Your task to perform on an android device: open the mobile data screen to see how much data has been used Image 0: 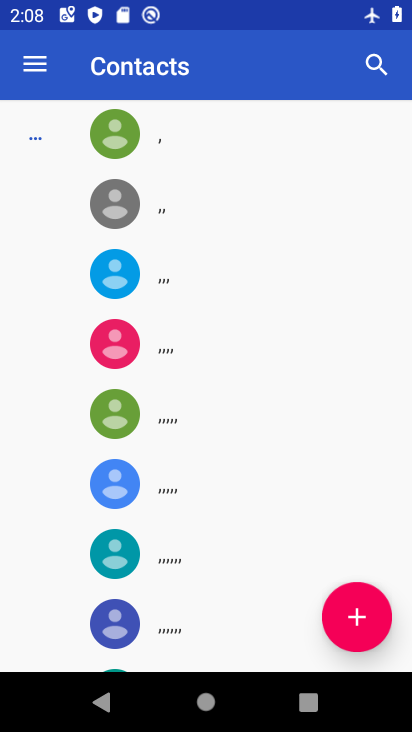
Step 0: press home button
Your task to perform on an android device: open the mobile data screen to see how much data has been used Image 1: 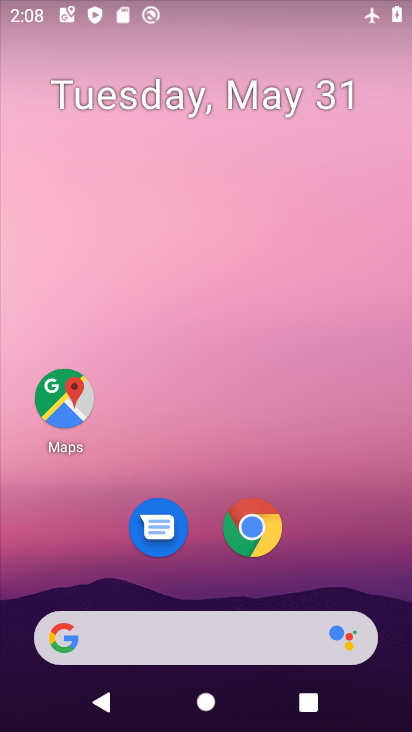
Step 1: click (342, 71)
Your task to perform on an android device: open the mobile data screen to see how much data has been used Image 2: 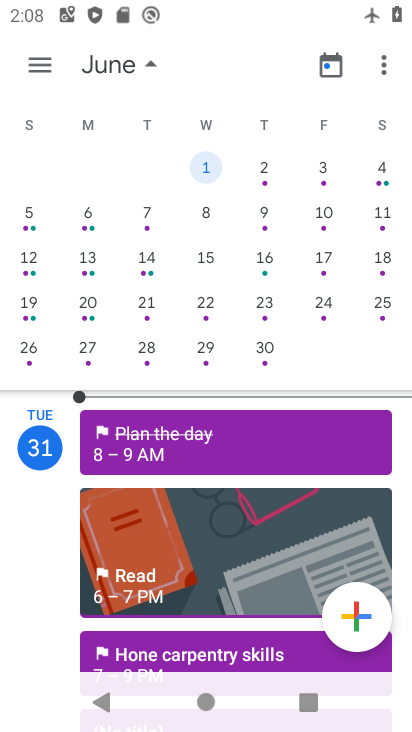
Step 2: press home button
Your task to perform on an android device: open the mobile data screen to see how much data has been used Image 3: 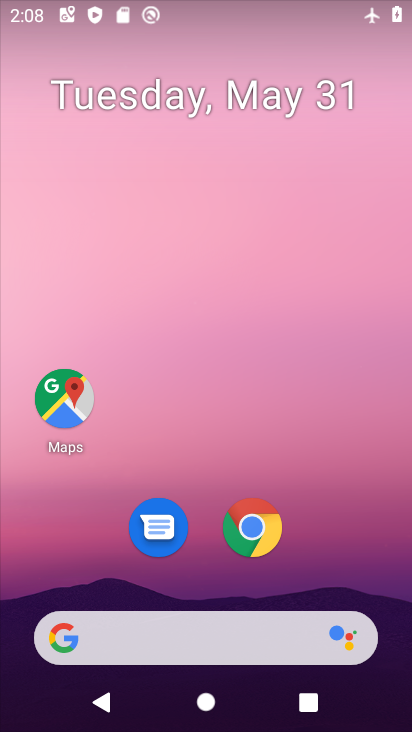
Step 3: drag from (337, 556) to (278, 82)
Your task to perform on an android device: open the mobile data screen to see how much data has been used Image 4: 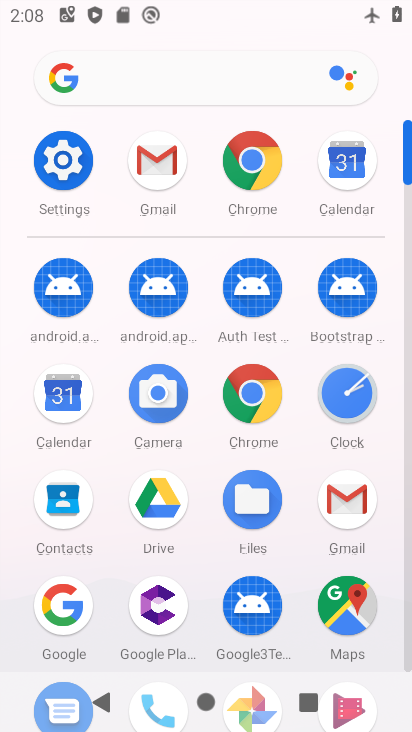
Step 4: click (67, 155)
Your task to perform on an android device: open the mobile data screen to see how much data has been used Image 5: 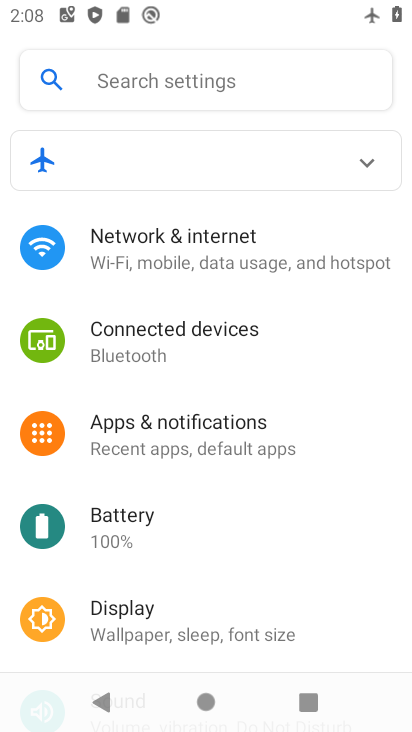
Step 5: click (221, 250)
Your task to perform on an android device: open the mobile data screen to see how much data has been used Image 6: 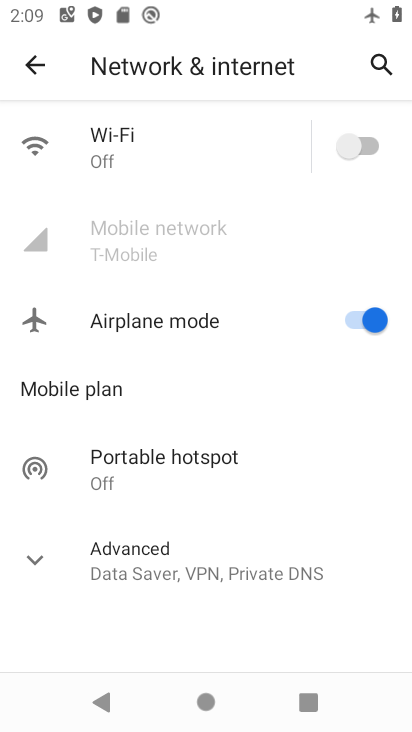
Step 6: click (125, 240)
Your task to perform on an android device: open the mobile data screen to see how much data has been used Image 7: 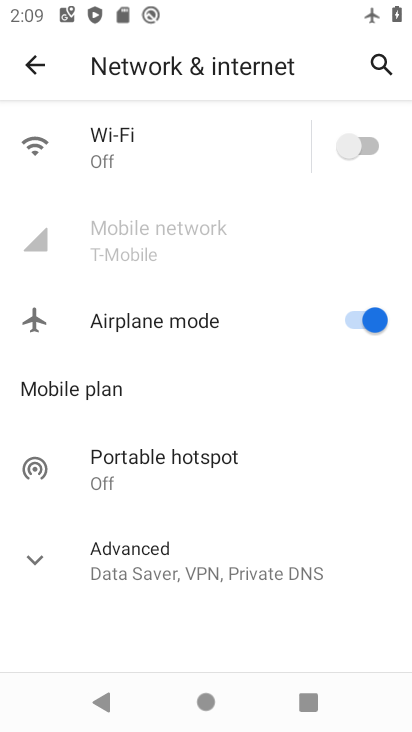
Step 7: task complete